Your task to perform on an android device: turn on priority inbox in the gmail app Image 0: 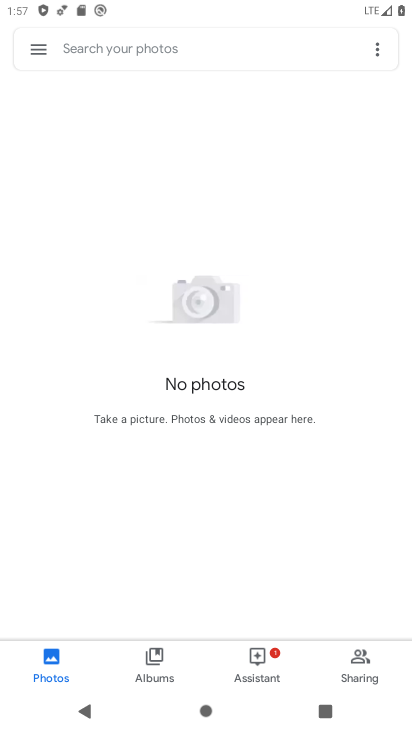
Step 0: press home button
Your task to perform on an android device: turn on priority inbox in the gmail app Image 1: 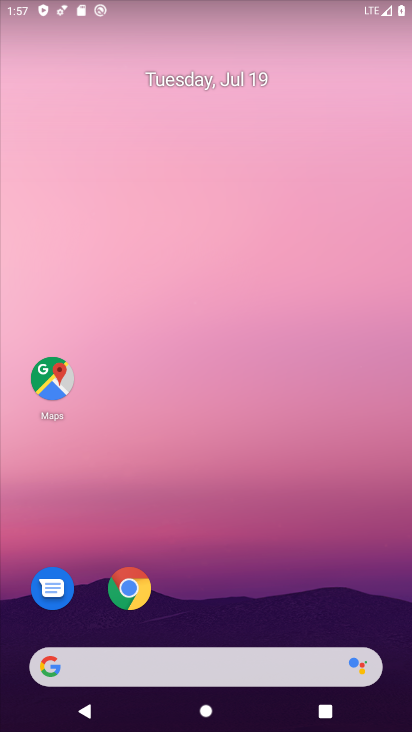
Step 1: drag from (240, 537) to (188, 76)
Your task to perform on an android device: turn on priority inbox in the gmail app Image 2: 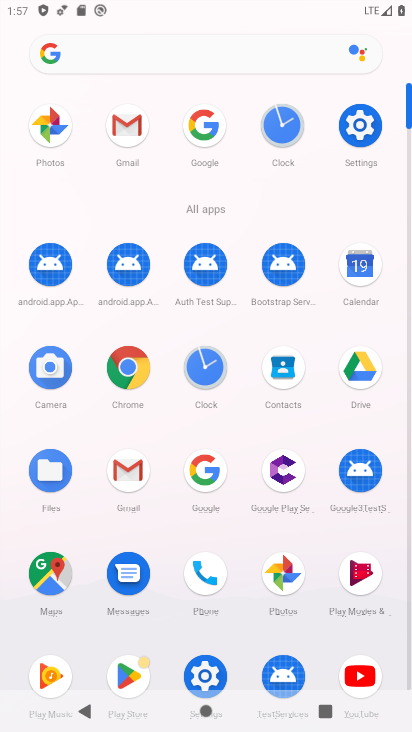
Step 2: click (117, 107)
Your task to perform on an android device: turn on priority inbox in the gmail app Image 3: 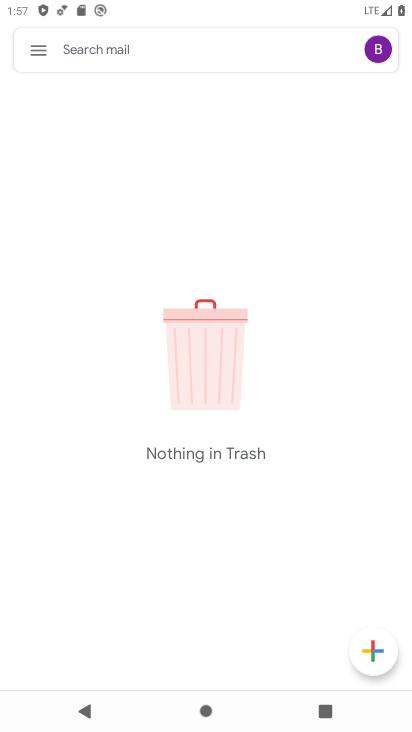
Step 3: click (36, 45)
Your task to perform on an android device: turn on priority inbox in the gmail app Image 4: 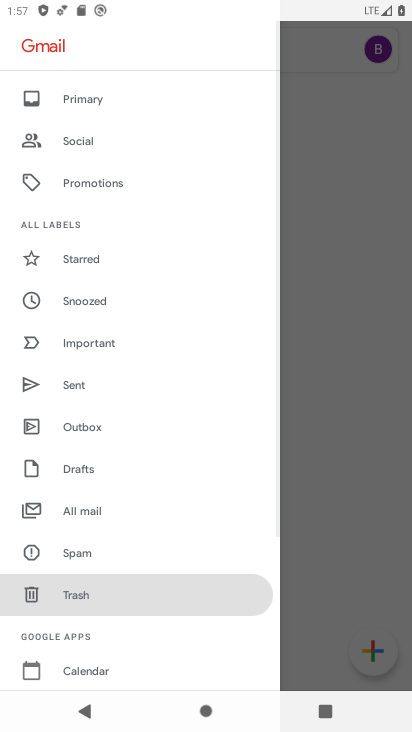
Step 4: drag from (152, 655) to (89, 219)
Your task to perform on an android device: turn on priority inbox in the gmail app Image 5: 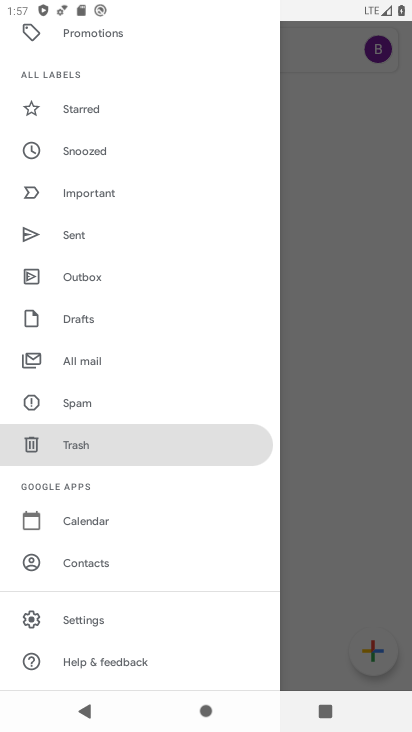
Step 5: click (74, 622)
Your task to perform on an android device: turn on priority inbox in the gmail app Image 6: 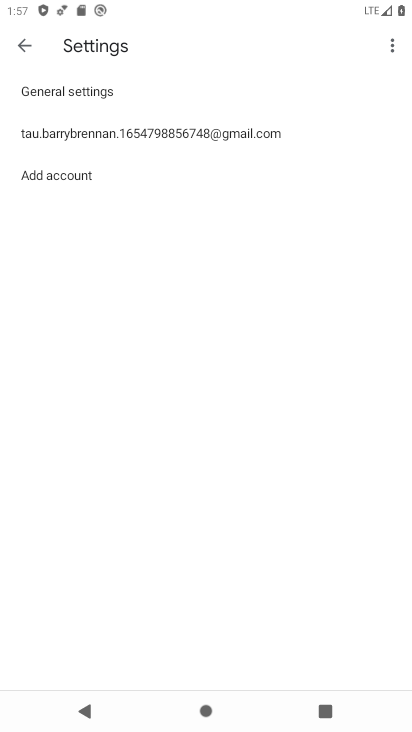
Step 6: click (81, 128)
Your task to perform on an android device: turn on priority inbox in the gmail app Image 7: 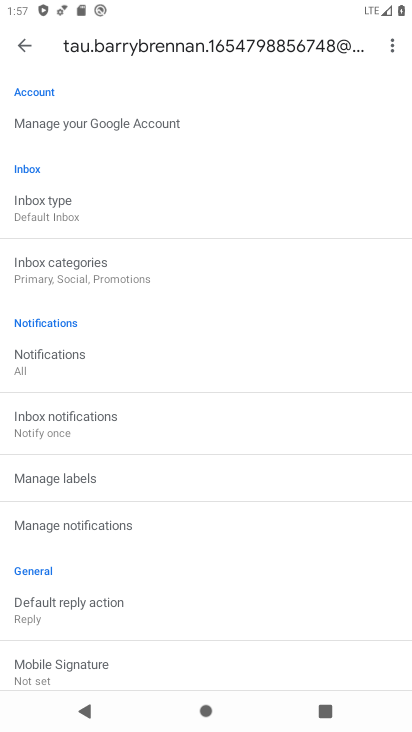
Step 7: click (42, 204)
Your task to perform on an android device: turn on priority inbox in the gmail app Image 8: 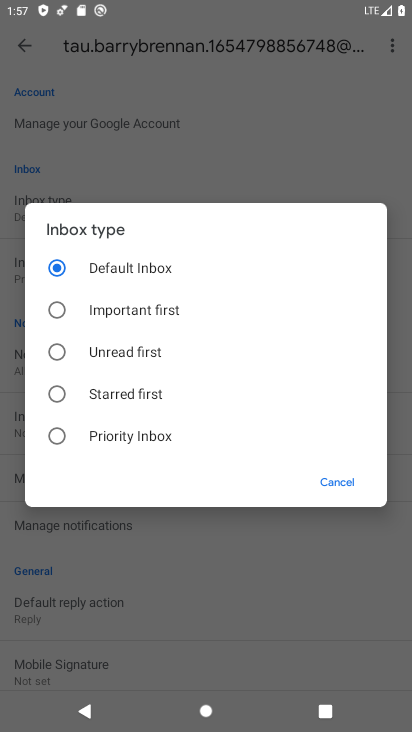
Step 8: click (61, 433)
Your task to perform on an android device: turn on priority inbox in the gmail app Image 9: 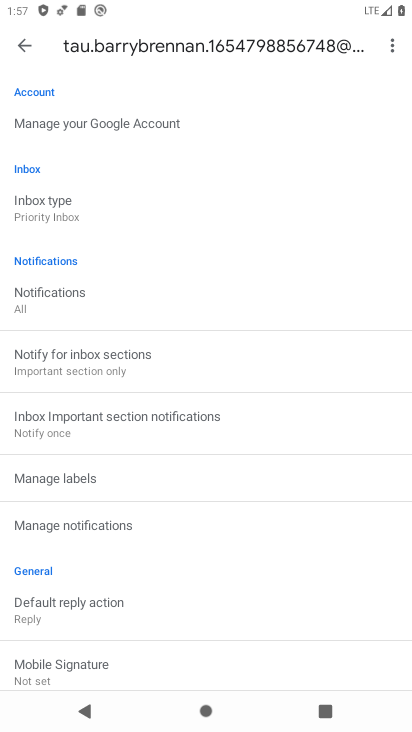
Step 9: task complete